Your task to perform on an android device: What's on my calendar tomorrow? Image 0: 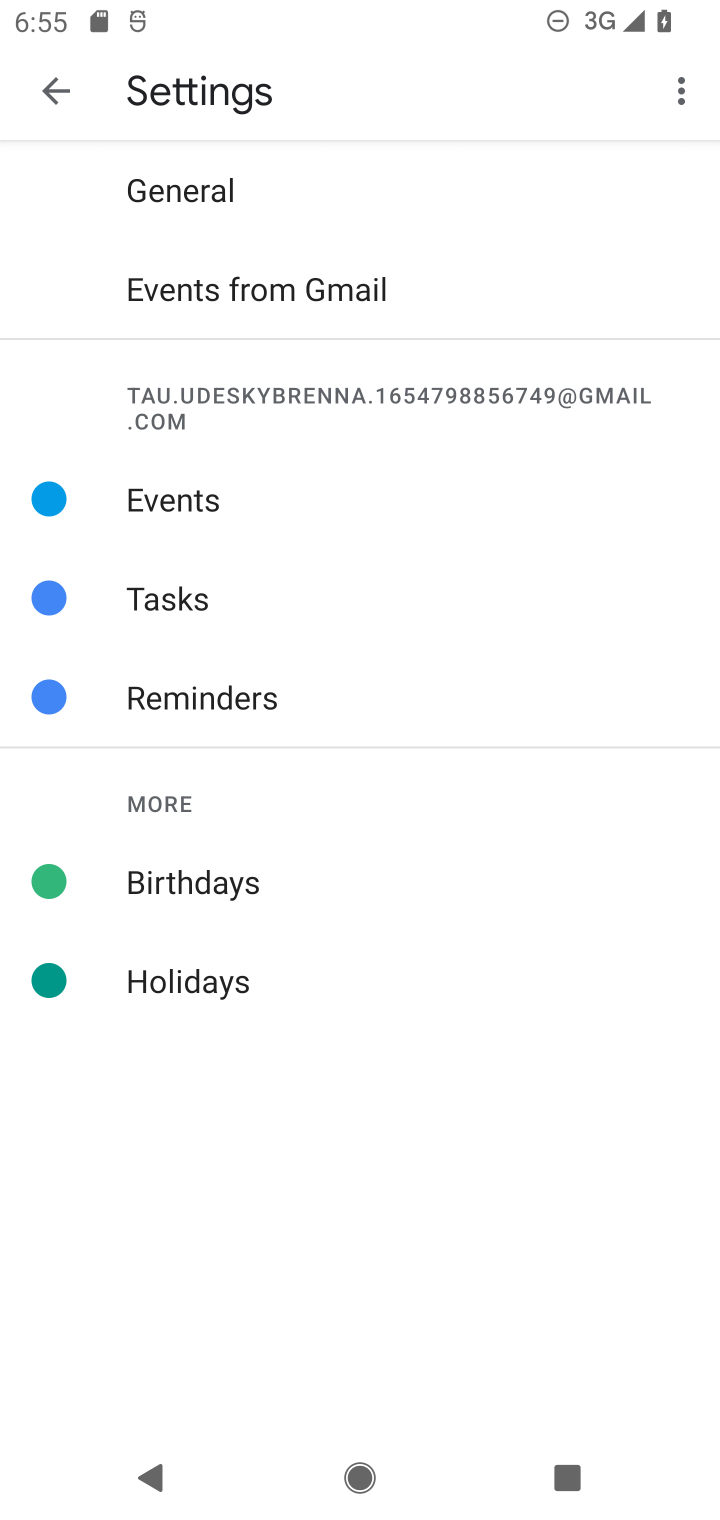
Step 0: press home button
Your task to perform on an android device: What's on my calendar tomorrow? Image 1: 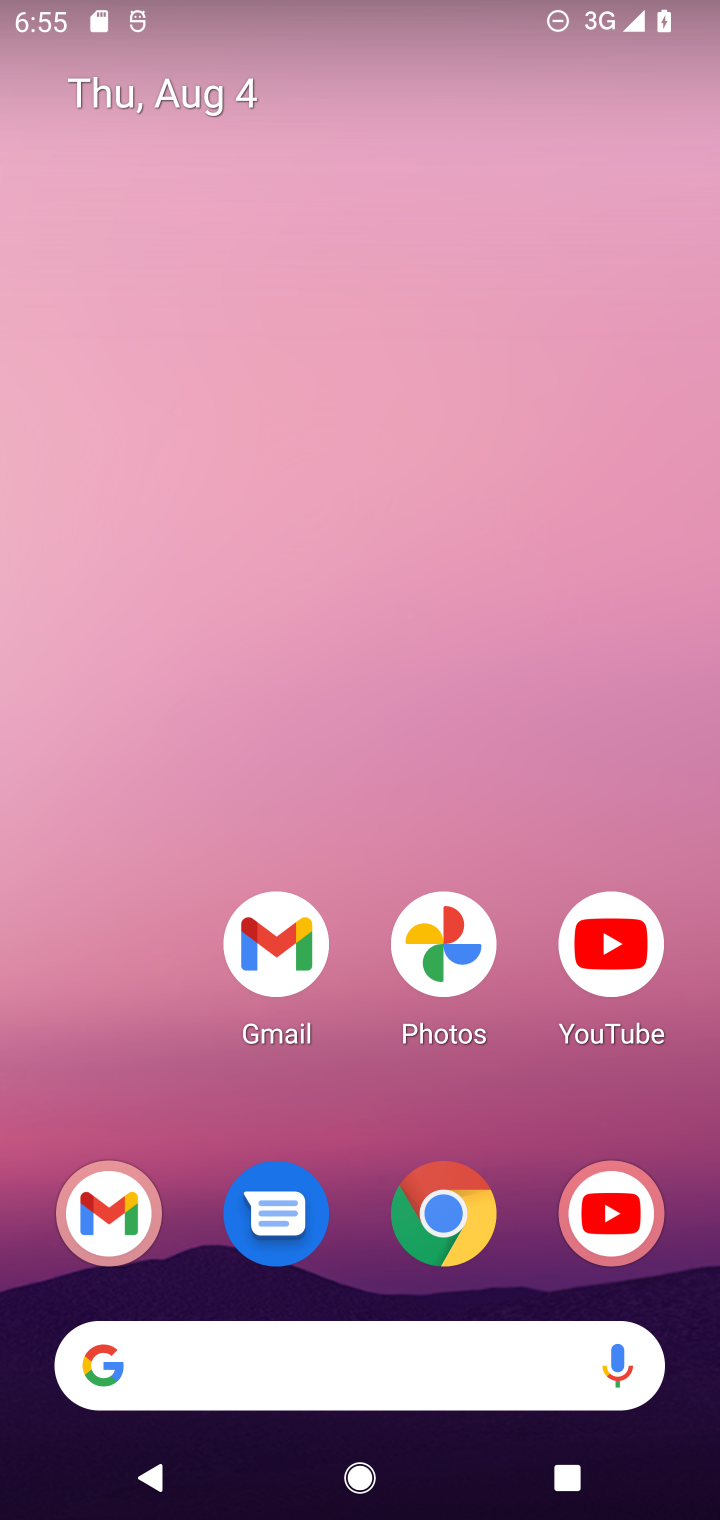
Step 1: drag from (160, 1090) to (126, 438)
Your task to perform on an android device: What's on my calendar tomorrow? Image 2: 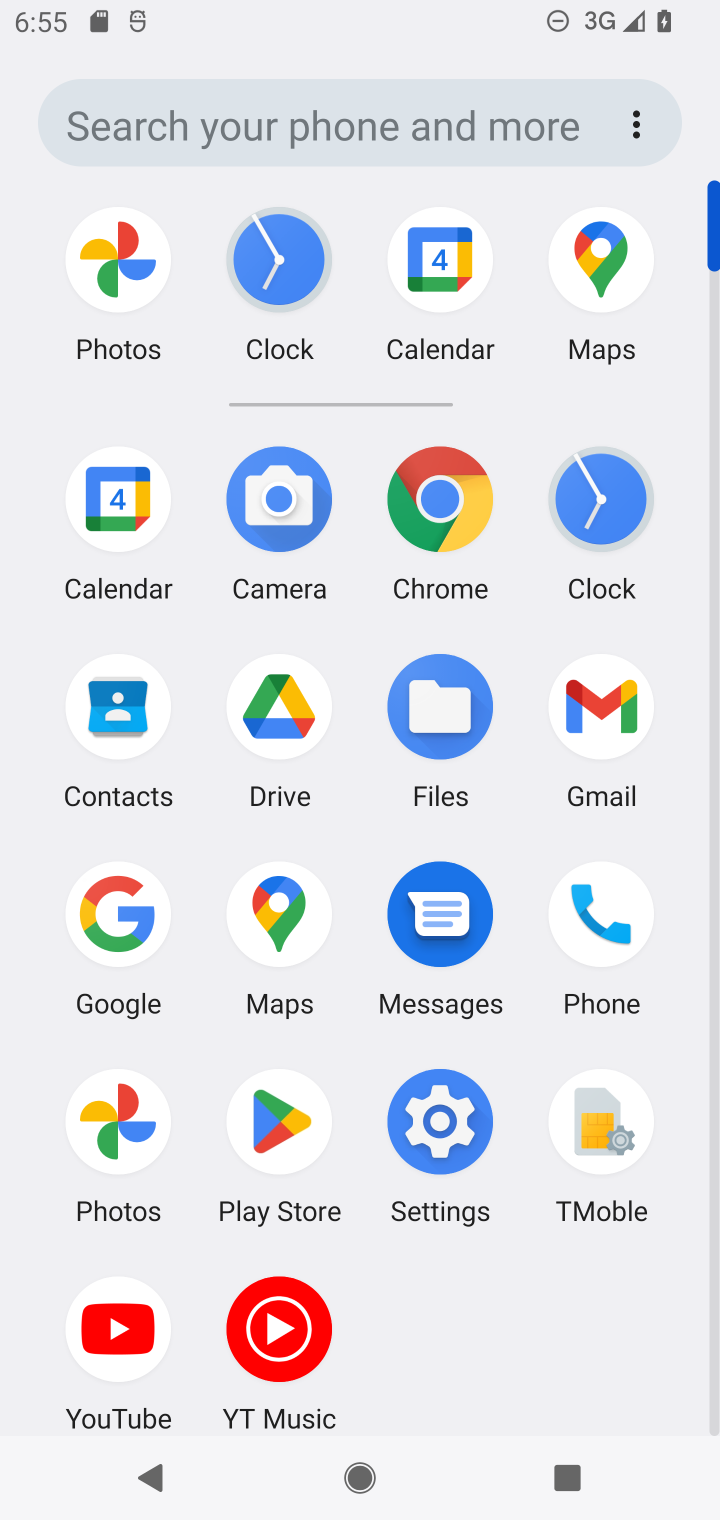
Step 2: click (123, 498)
Your task to perform on an android device: What's on my calendar tomorrow? Image 3: 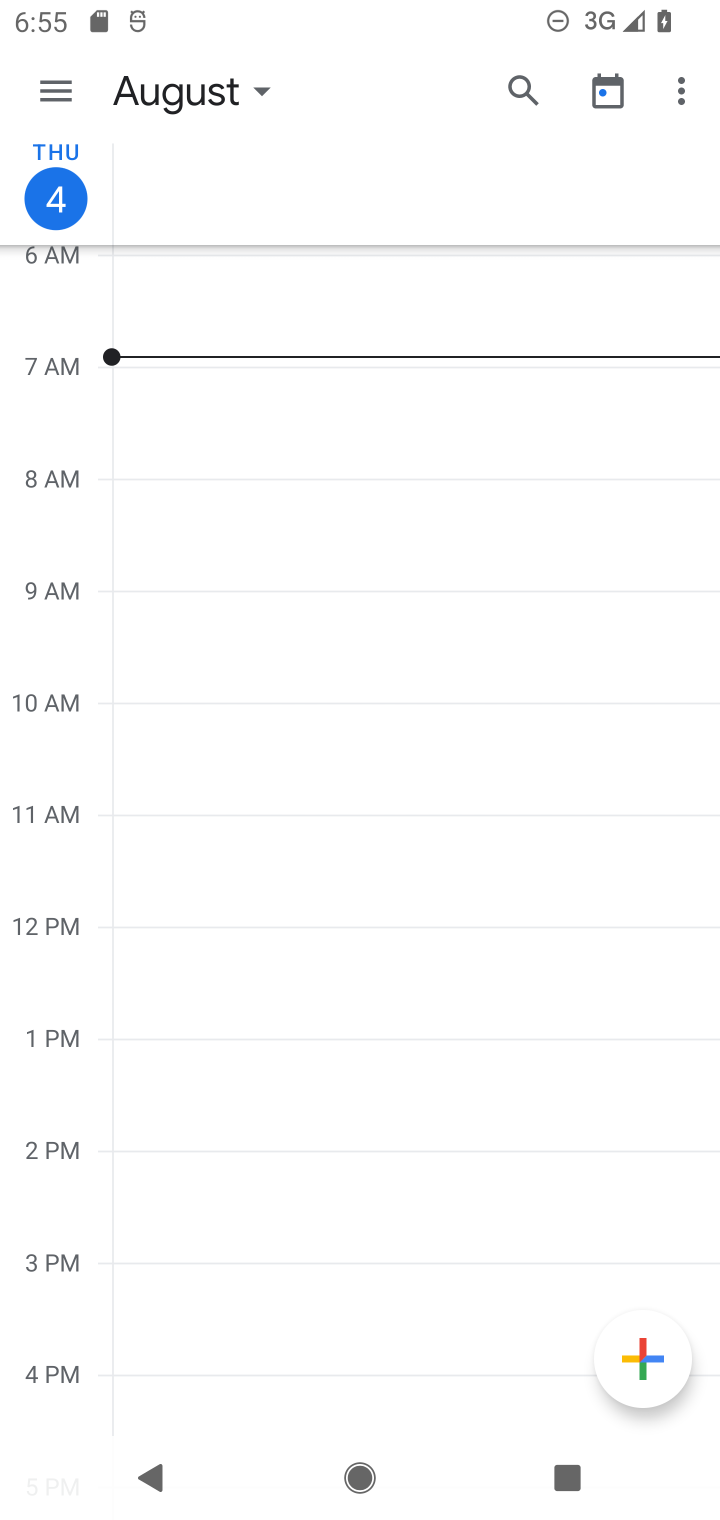
Step 3: click (63, 75)
Your task to perform on an android device: What's on my calendar tomorrow? Image 4: 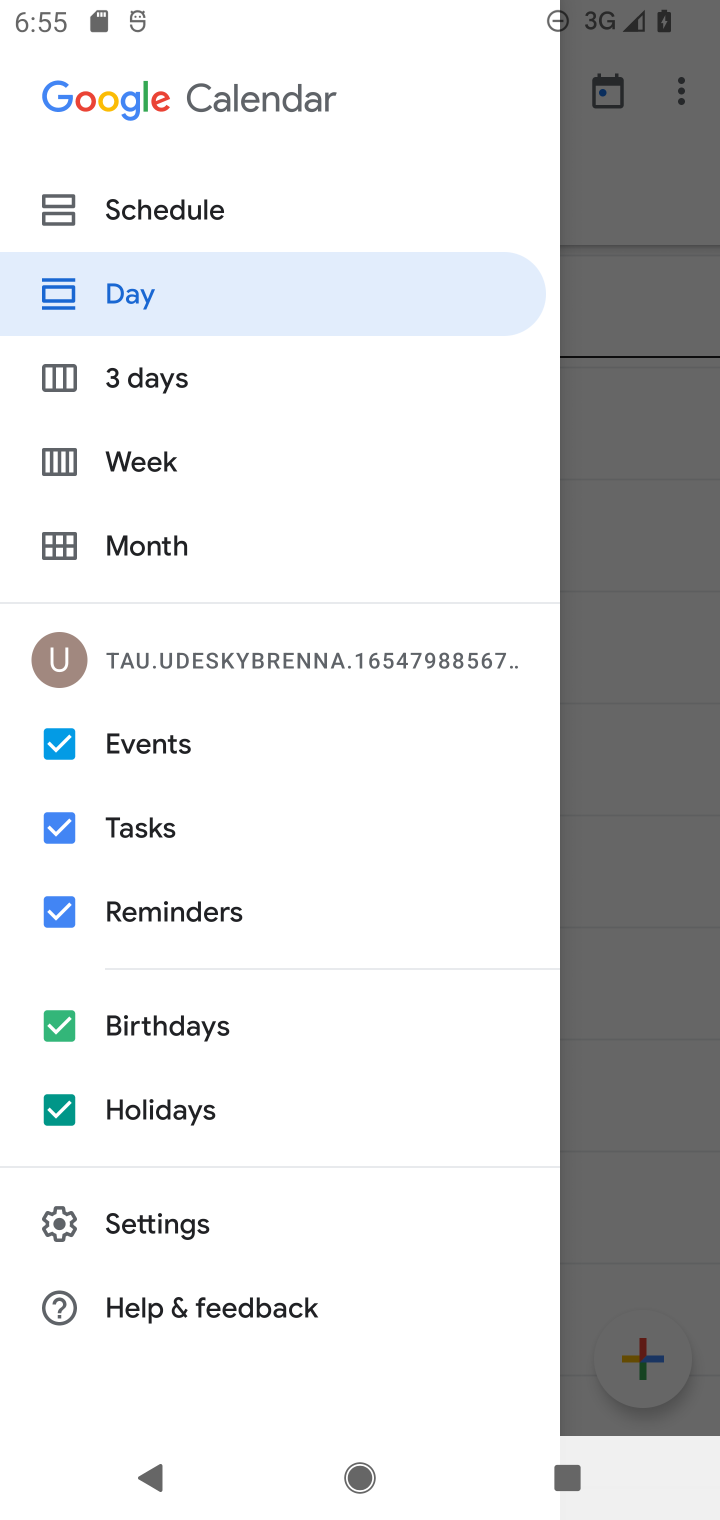
Step 4: click (185, 193)
Your task to perform on an android device: What's on my calendar tomorrow? Image 5: 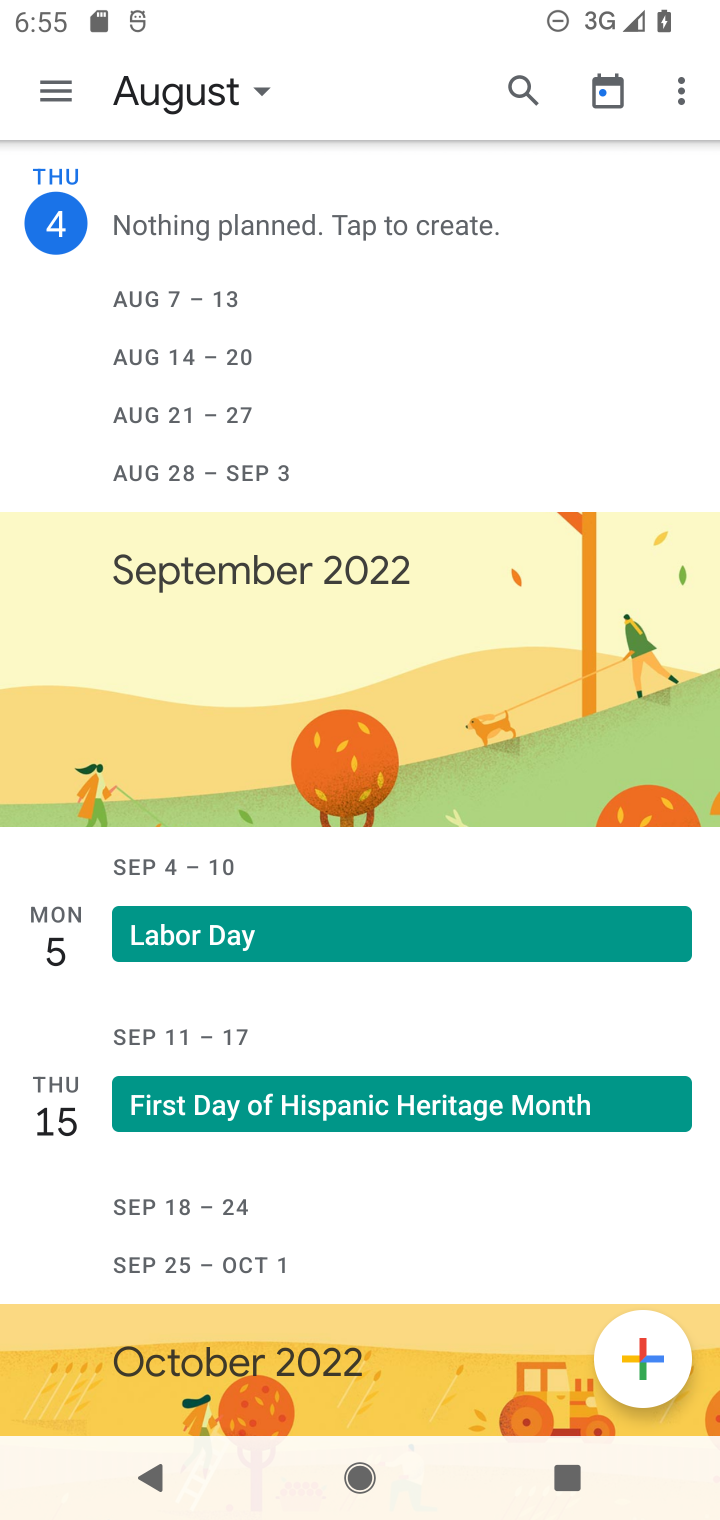
Step 5: click (261, 85)
Your task to perform on an android device: What's on my calendar tomorrow? Image 6: 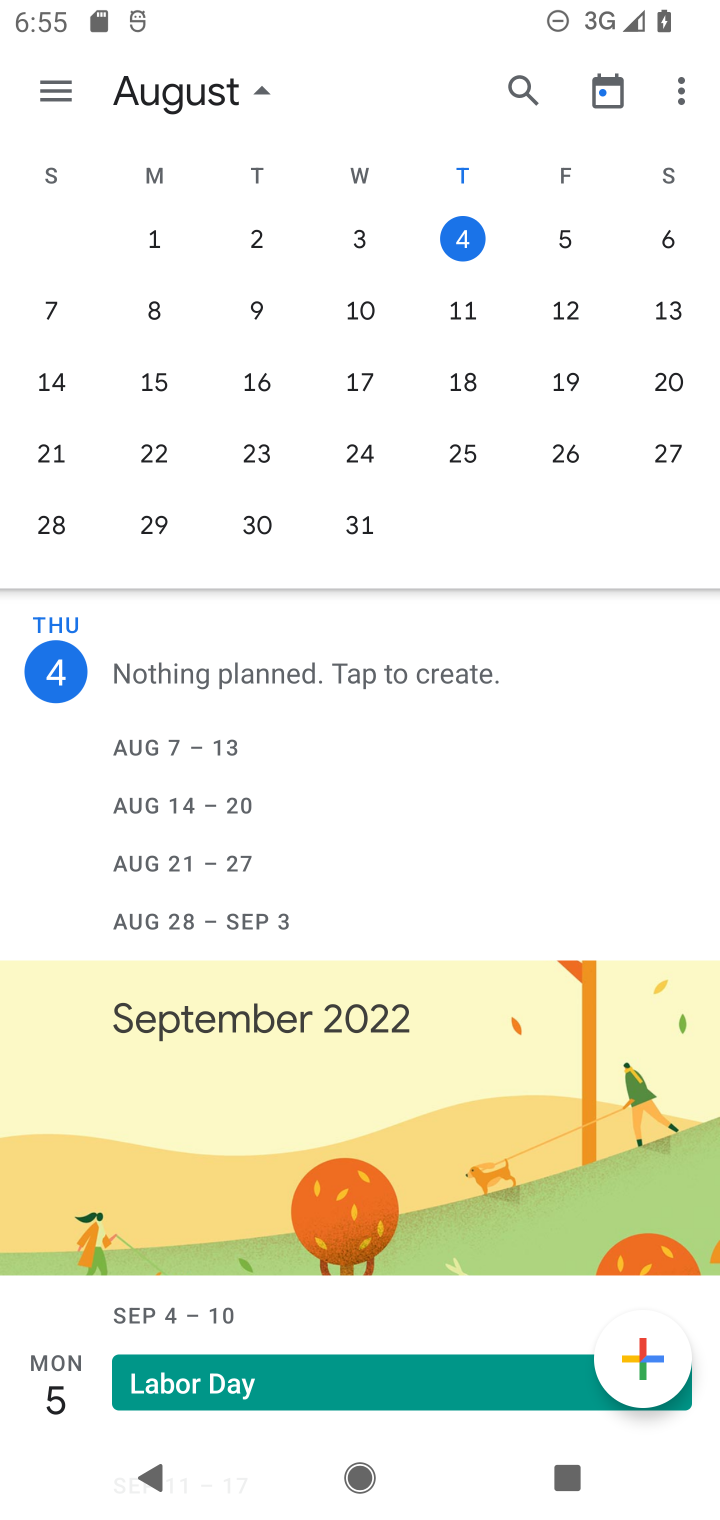
Step 6: click (566, 241)
Your task to perform on an android device: What's on my calendar tomorrow? Image 7: 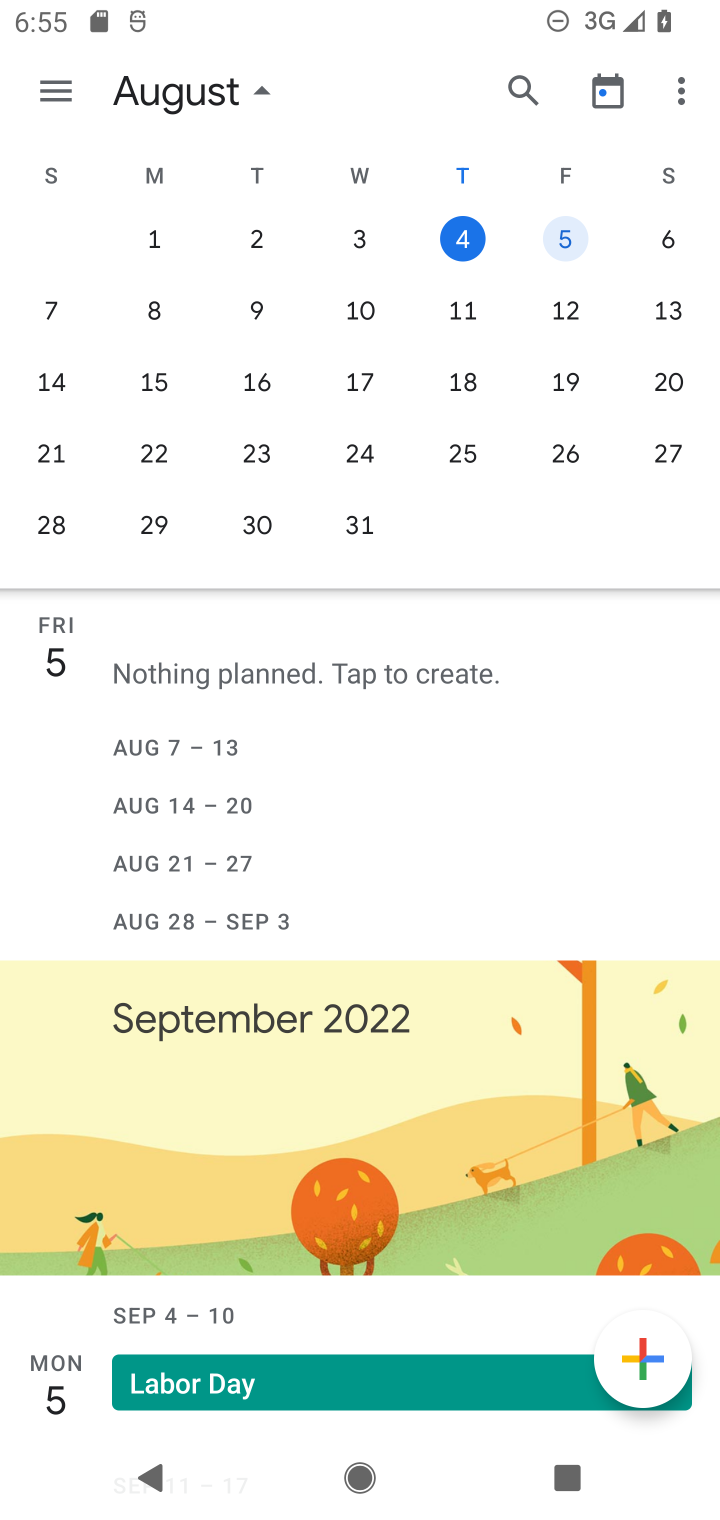
Step 7: task complete